Your task to perform on an android device: Do I have any events this weekend? Image 0: 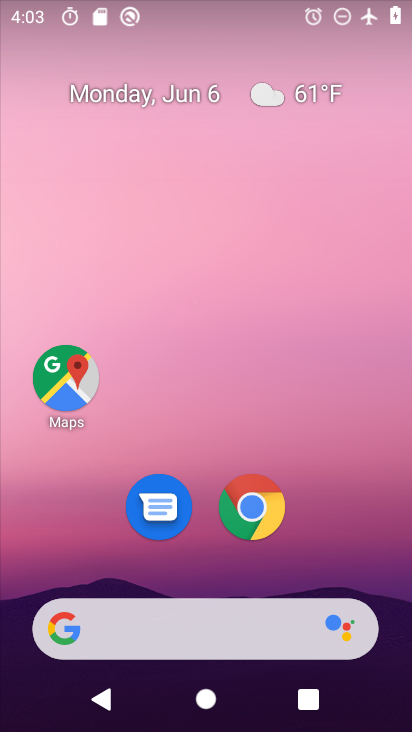
Step 0: drag from (184, 572) to (213, 135)
Your task to perform on an android device: Do I have any events this weekend? Image 1: 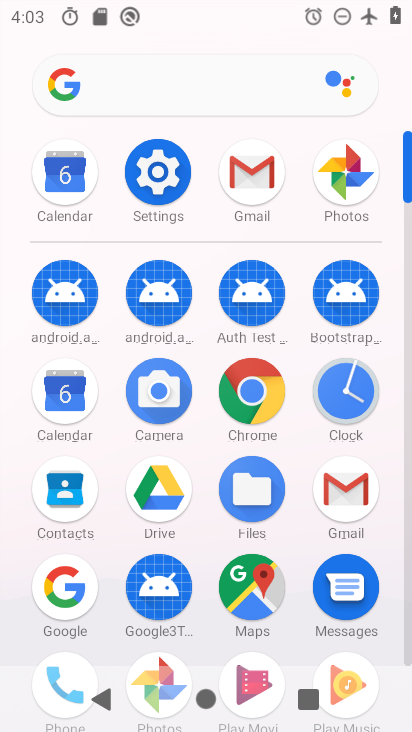
Step 1: click (65, 405)
Your task to perform on an android device: Do I have any events this weekend? Image 2: 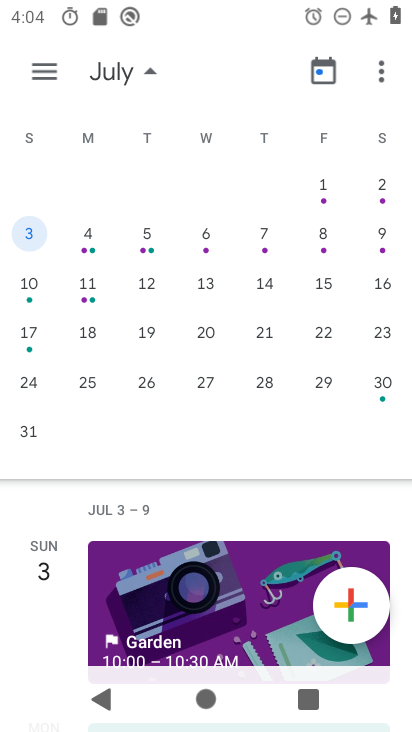
Step 2: click (374, 237)
Your task to perform on an android device: Do I have any events this weekend? Image 3: 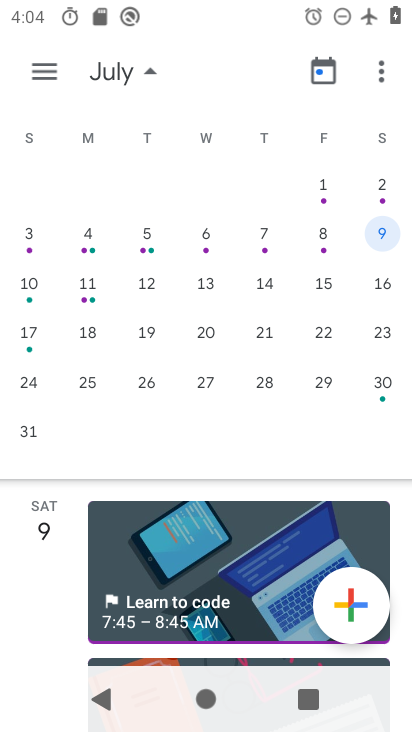
Step 3: click (386, 238)
Your task to perform on an android device: Do I have any events this weekend? Image 4: 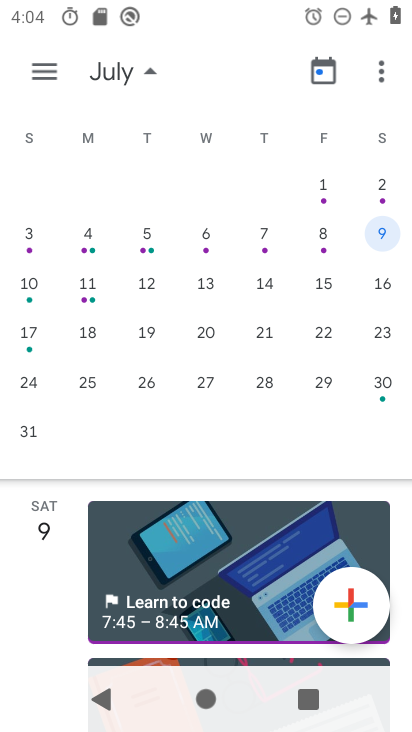
Step 4: task complete